Your task to perform on an android device: Open eBay Image 0: 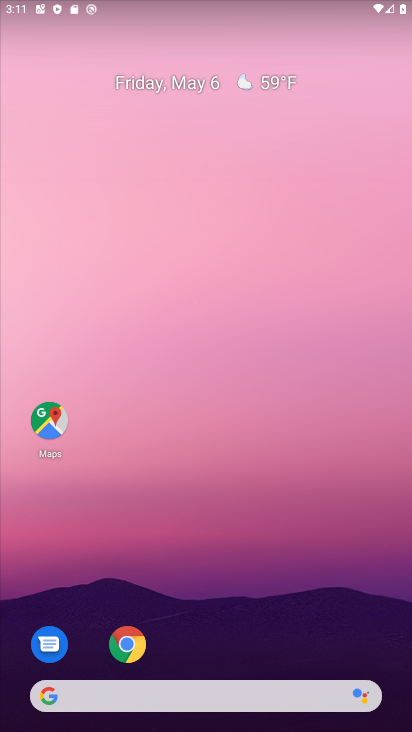
Step 0: click (125, 642)
Your task to perform on an android device: Open eBay Image 1: 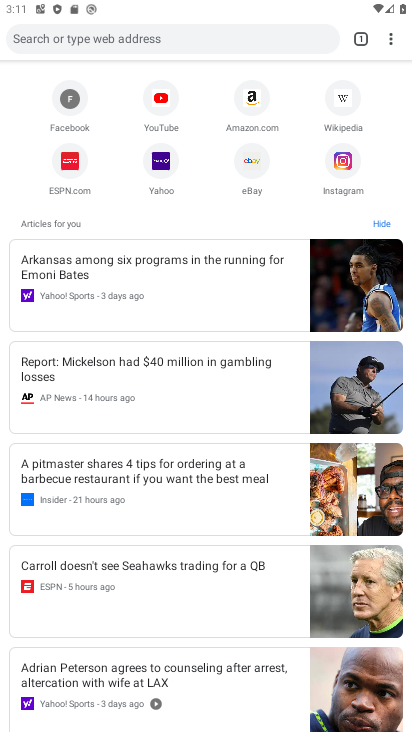
Step 1: click (251, 157)
Your task to perform on an android device: Open eBay Image 2: 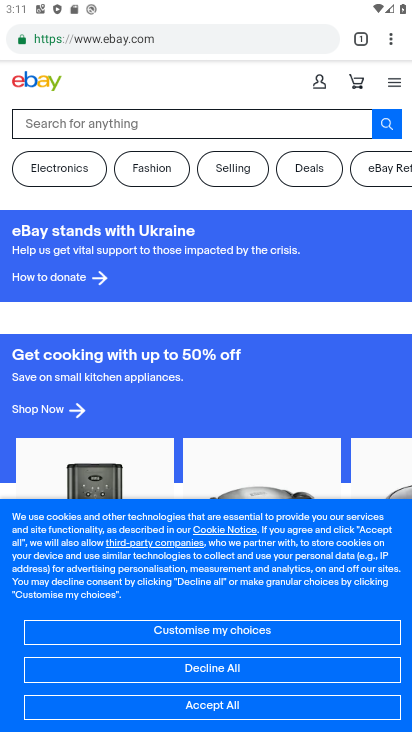
Step 2: task complete